Your task to perform on an android device: open app "Google Play Games" Image 0: 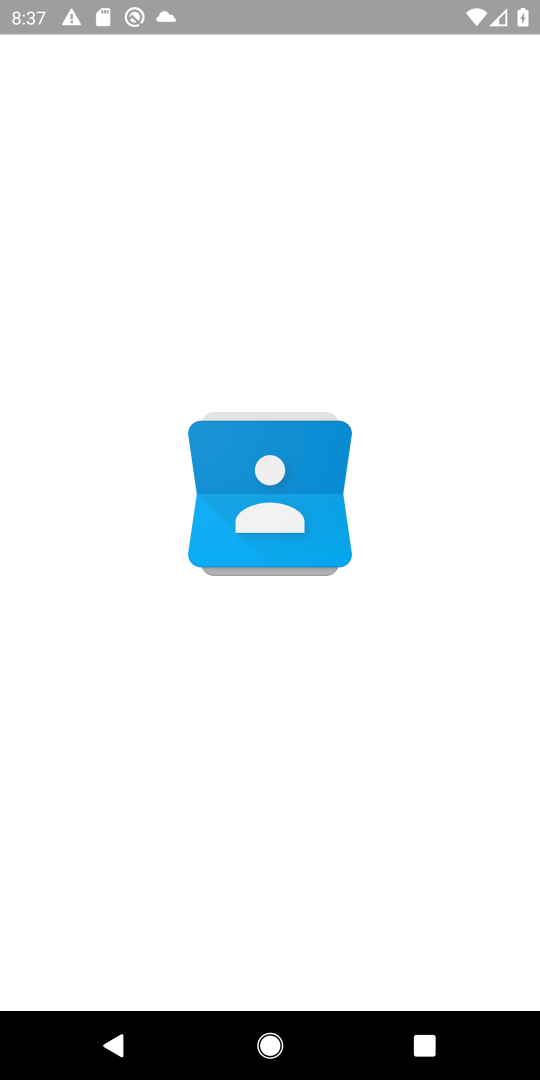
Step 0: press home button
Your task to perform on an android device: open app "Google Play Games" Image 1: 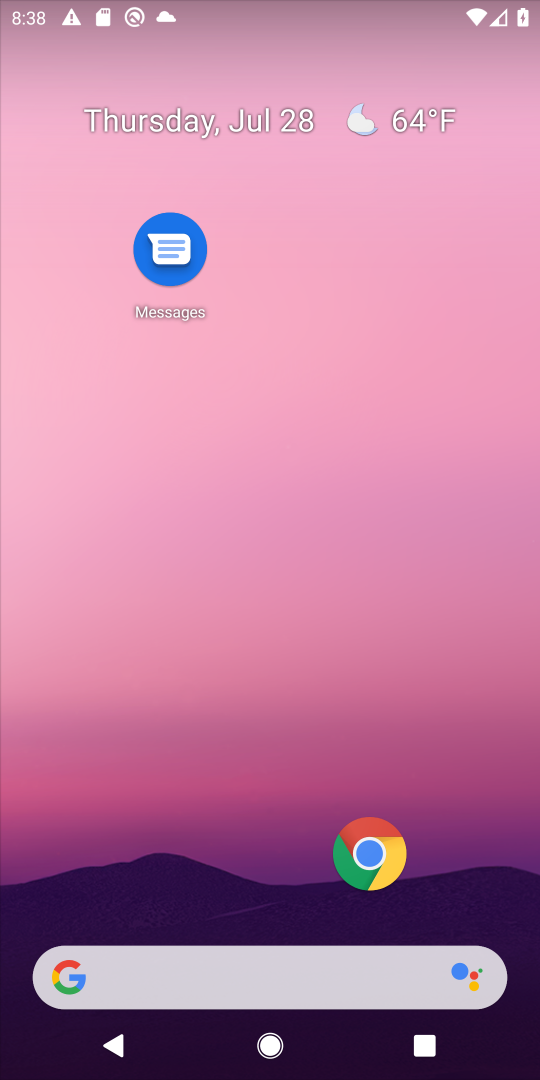
Step 1: drag from (238, 632) to (238, 300)
Your task to perform on an android device: open app "Google Play Games" Image 2: 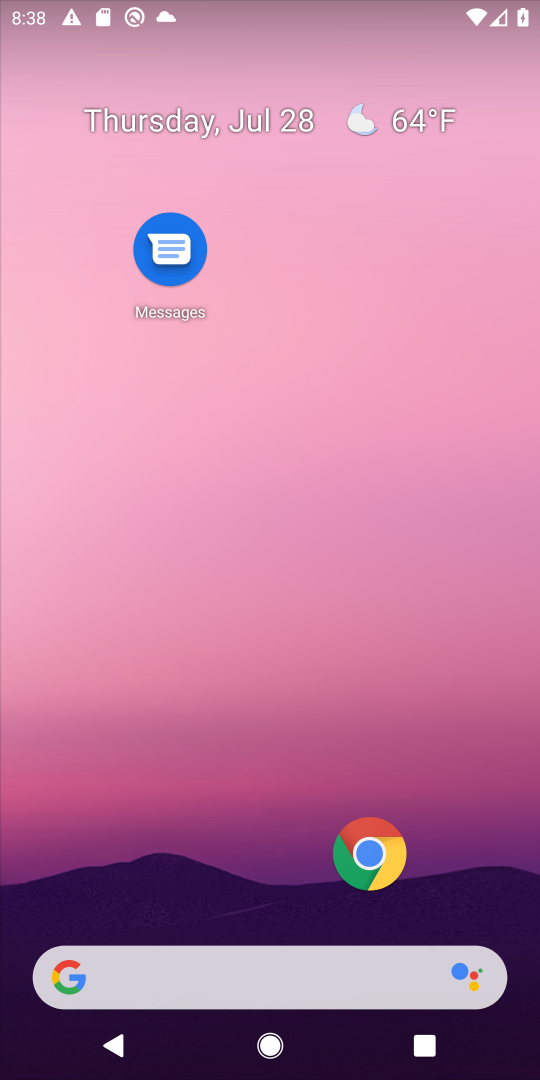
Step 2: drag from (243, 598) to (214, 79)
Your task to perform on an android device: open app "Google Play Games" Image 3: 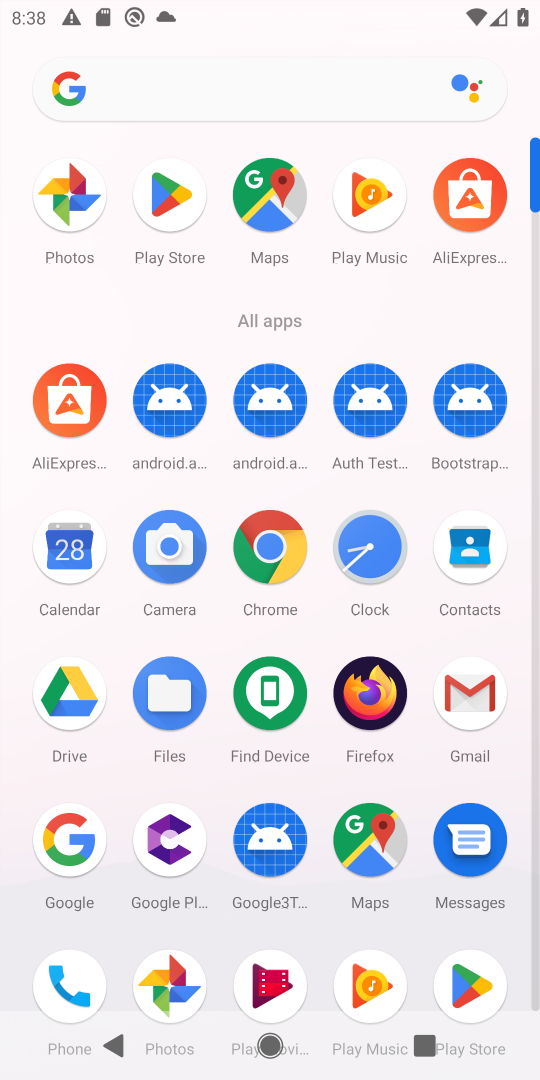
Step 3: click (165, 238)
Your task to perform on an android device: open app "Google Play Games" Image 4: 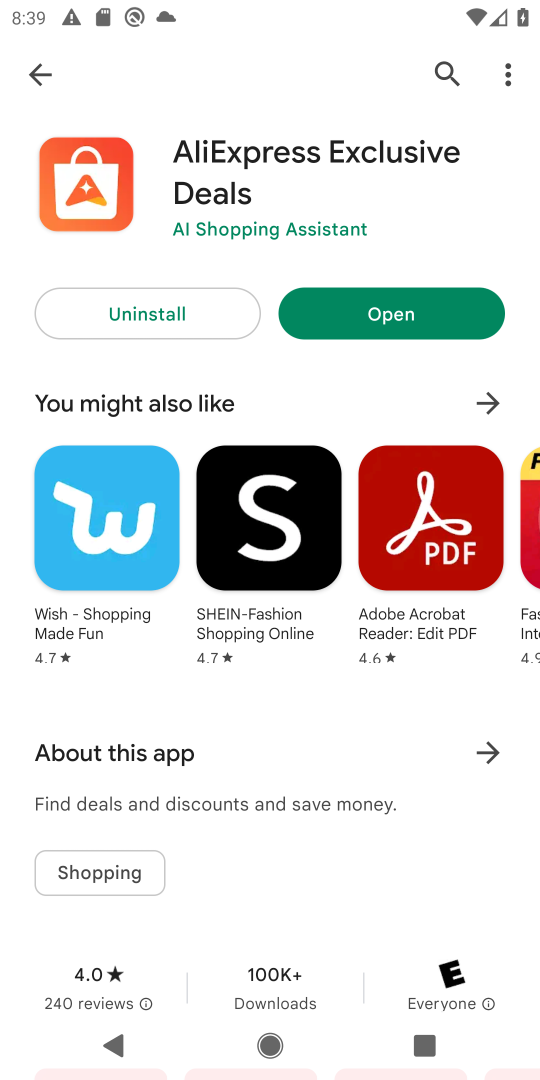
Step 4: click (53, 73)
Your task to perform on an android device: open app "Google Play Games" Image 5: 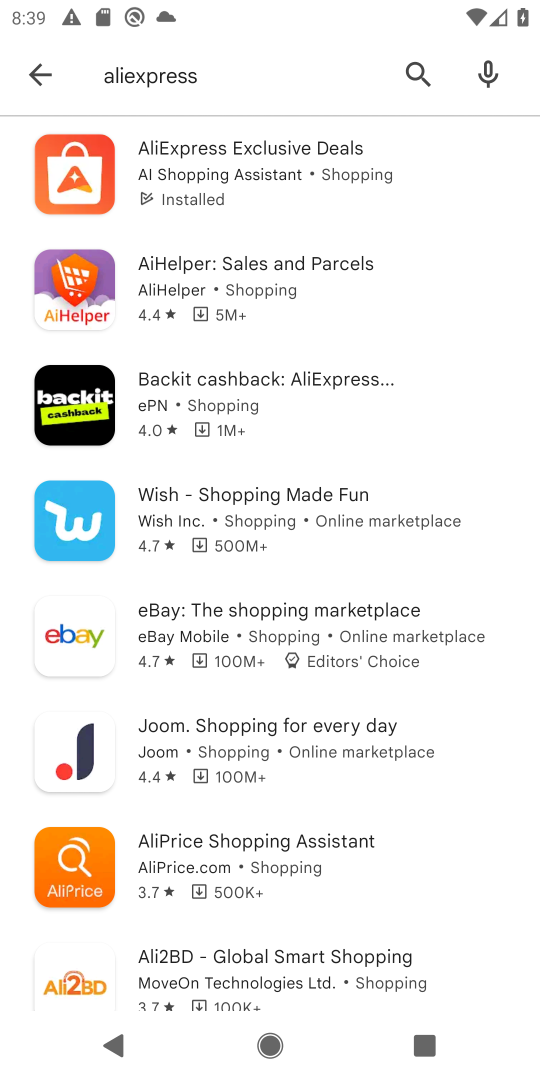
Step 5: click (40, 71)
Your task to perform on an android device: open app "Google Play Games" Image 6: 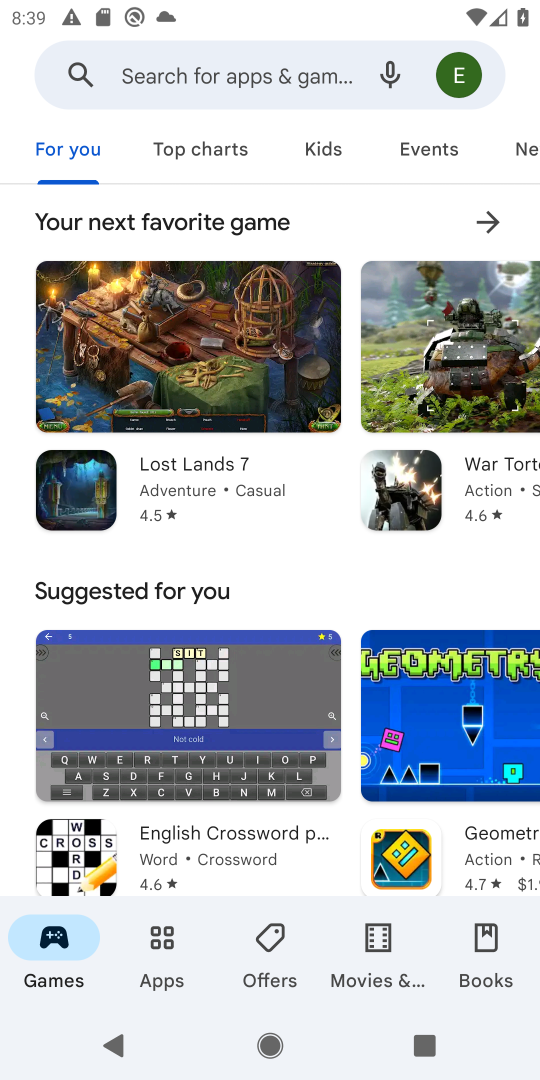
Step 6: click (147, 71)
Your task to perform on an android device: open app "Google Play Games" Image 7: 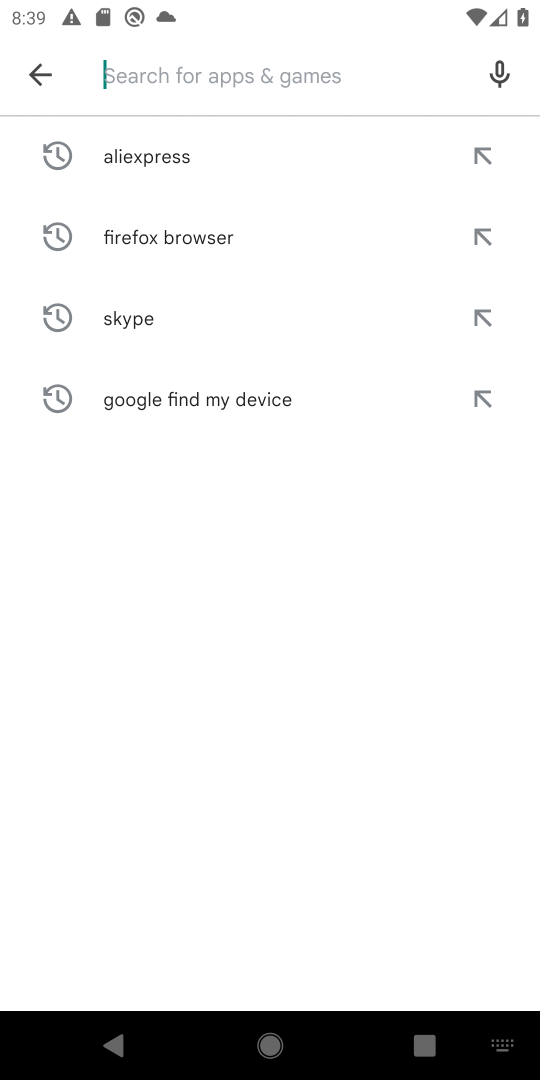
Step 7: type "Google Play Games"
Your task to perform on an android device: open app "Google Play Games" Image 8: 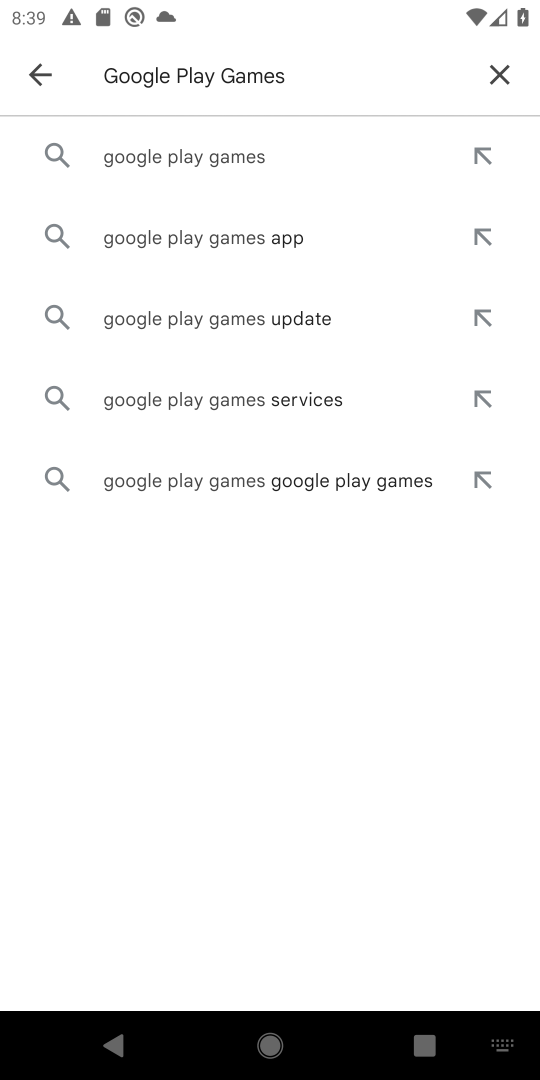
Step 8: click (259, 158)
Your task to perform on an android device: open app "Google Play Games" Image 9: 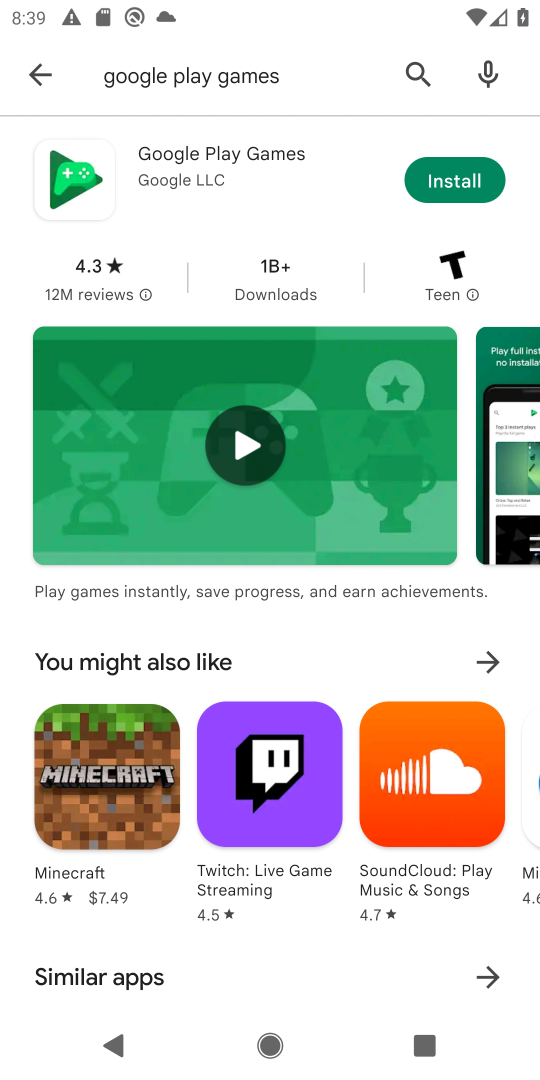
Step 9: click (455, 182)
Your task to perform on an android device: open app "Google Play Games" Image 10: 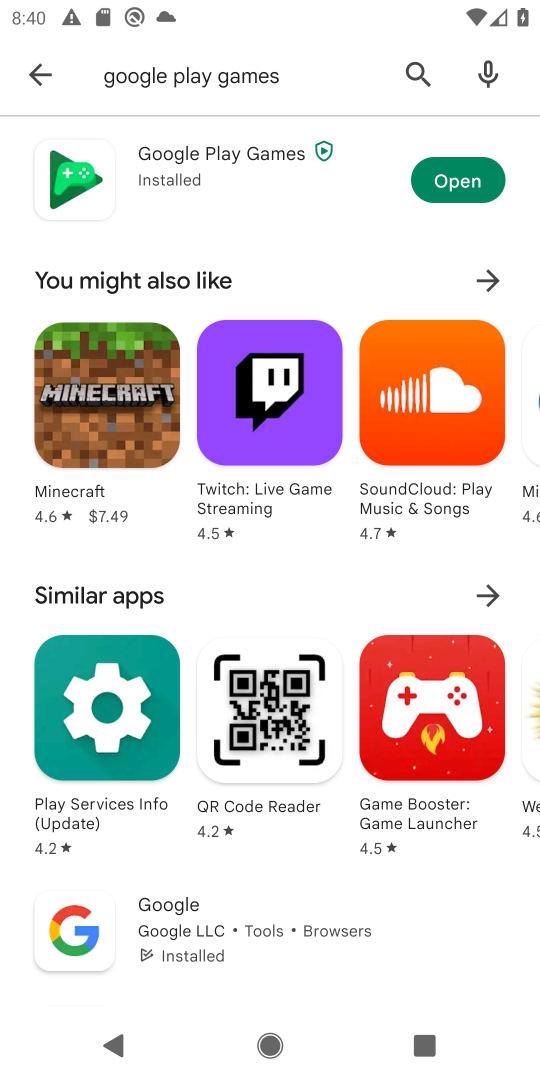
Step 10: click (475, 178)
Your task to perform on an android device: open app "Google Play Games" Image 11: 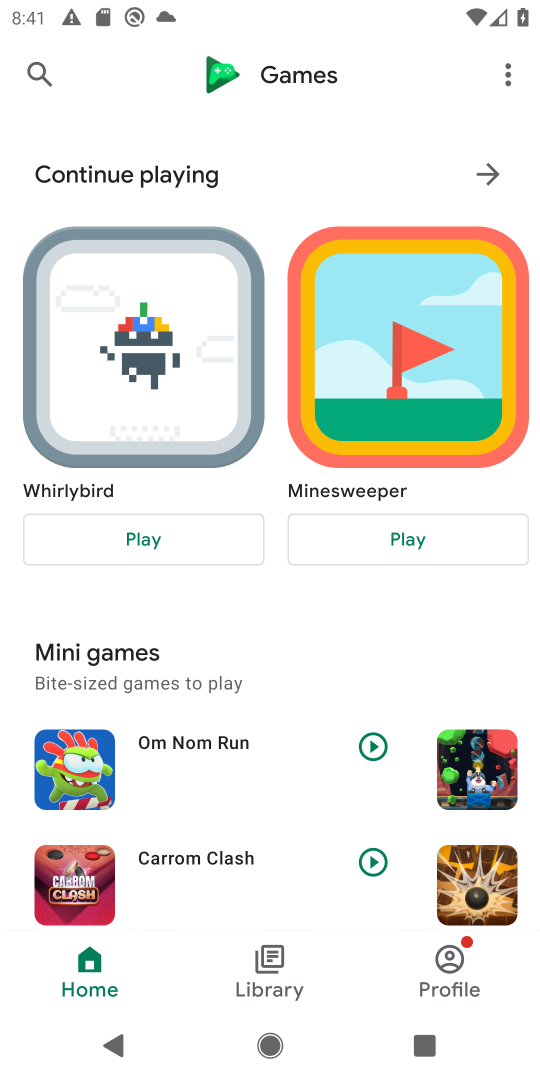
Step 11: task complete